Your task to perform on an android device: search for starred emails in the gmail app Image 0: 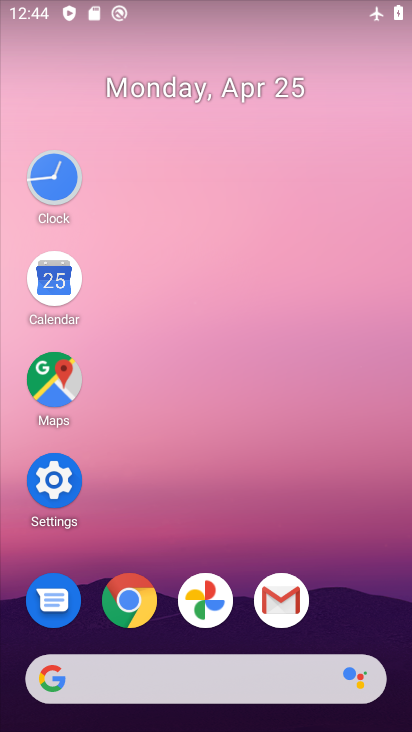
Step 0: click (281, 597)
Your task to perform on an android device: search for starred emails in the gmail app Image 1: 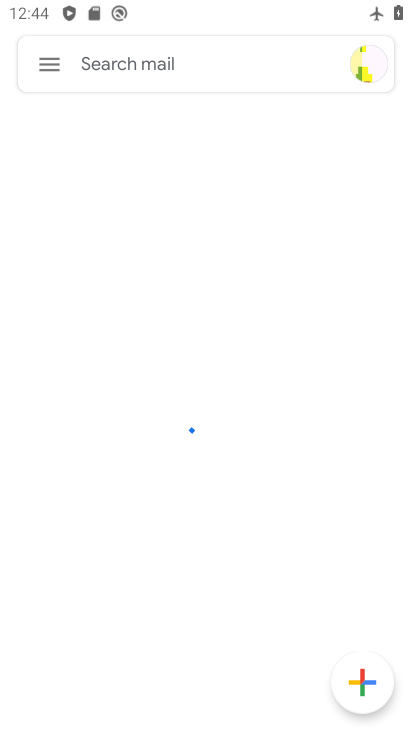
Step 1: click (41, 61)
Your task to perform on an android device: search for starred emails in the gmail app Image 2: 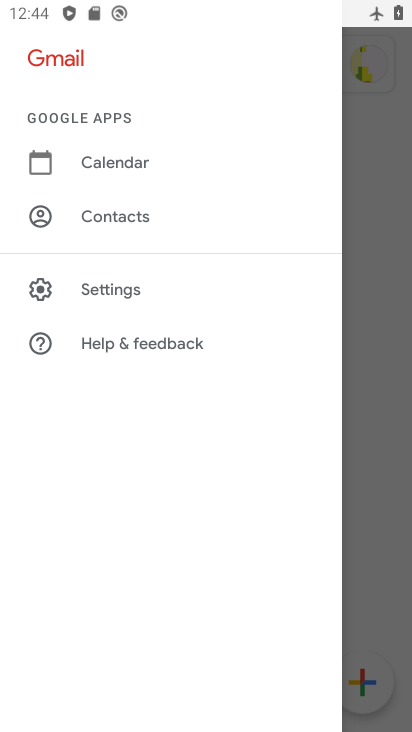
Step 2: click (108, 285)
Your task to perform on an android device: search for starred emails in the gmail app Image 3: 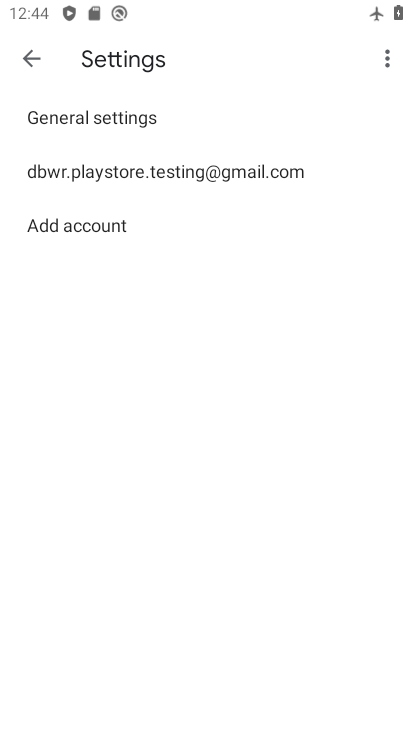
Step 3: click (31, 55)
Your task to perform on an android device: search for starred emails in the gmail app Image 4: 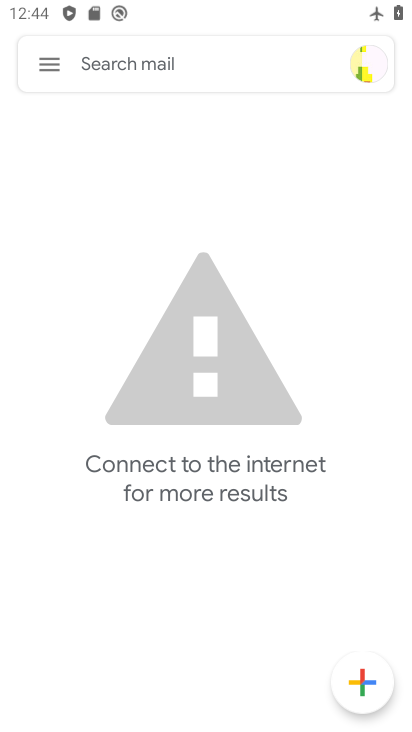
Step 4: task complete